Your task to perform on an android device: open wifi settings Image 0: 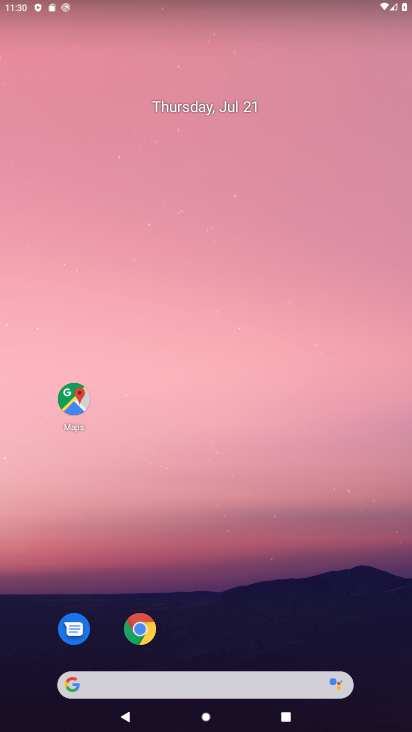
Step 0: drag from (221, 630) to (184, 99)
Your task to perform on an android device: open wifi settings Image 1: 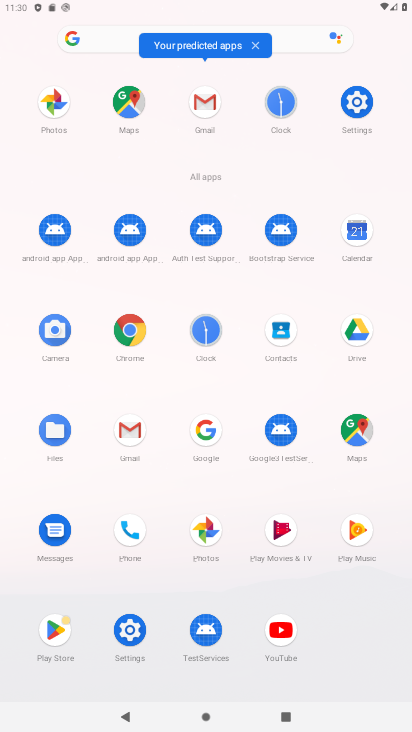
Step 1: click (350, 110)
Your task to perform on an android device: open wifi settings Image 2: 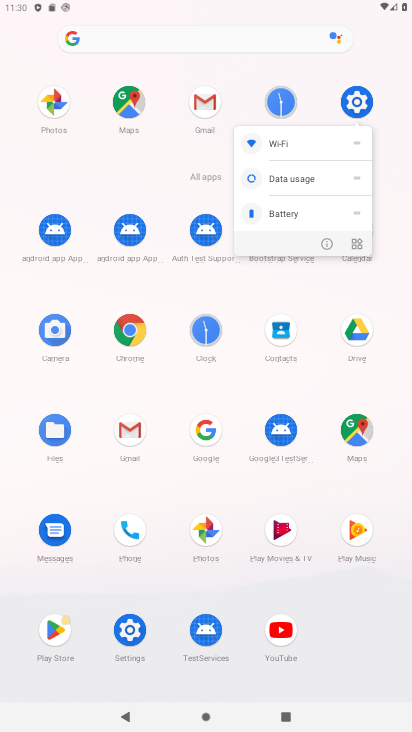
Step 2: click (350, 110)
Your task to perform on an android device: open wifi settings Image 3: 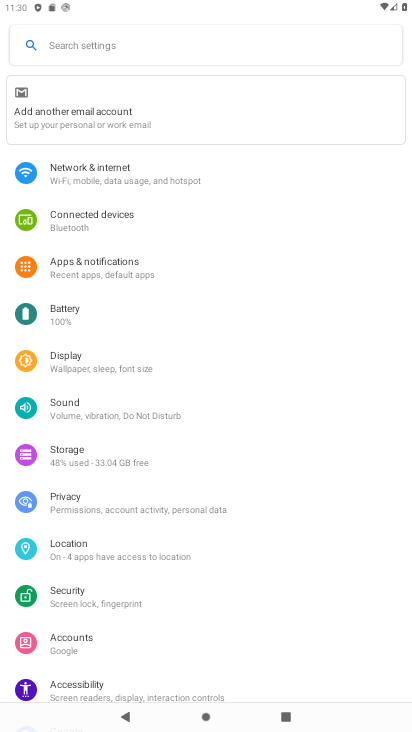
Step 3: click (211, 174)
Your task to perform on an android device: open wifi settings Image 4: 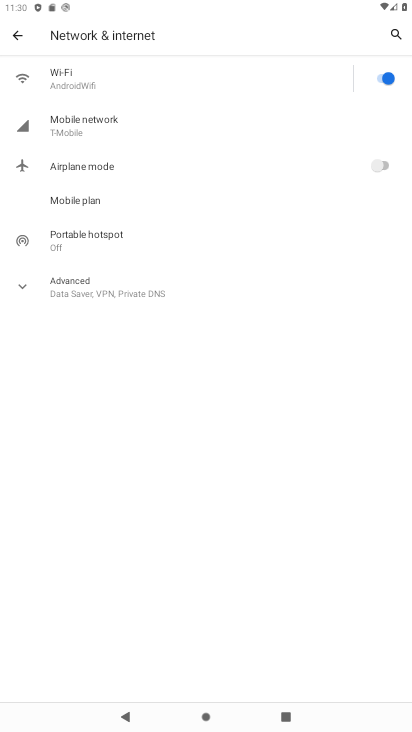
Step 4: click (158, 69)
Your task to perform on an android device: open wifi settings Image 5: 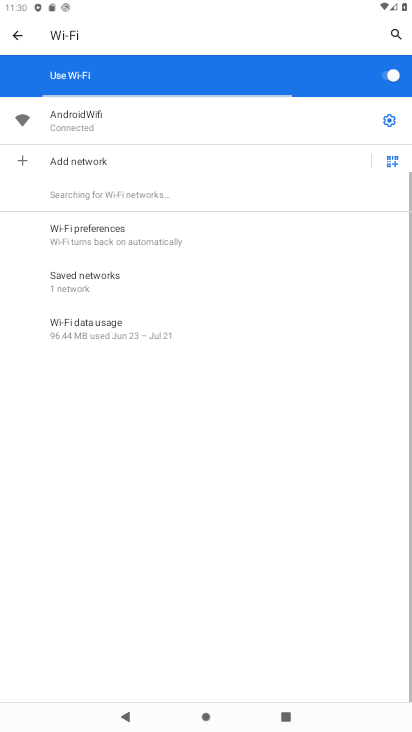
Step 5: task complete